Your task to perform on an android device: Open Maps and search for coffee Image 0: 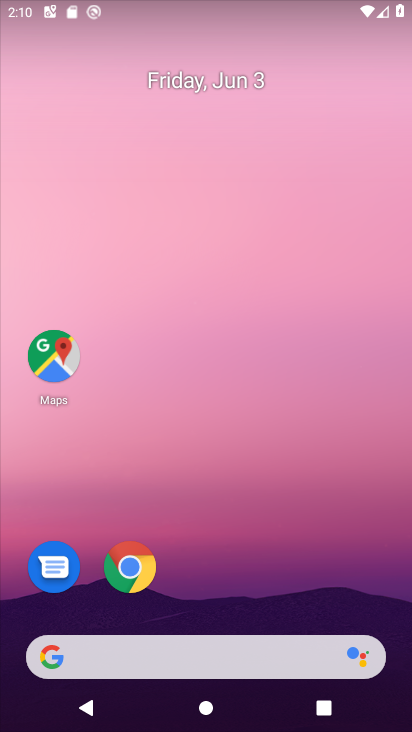
Step 0: click (48, 350)
Your task to perform on an android device: Open Maps and search for coffee Image 1: 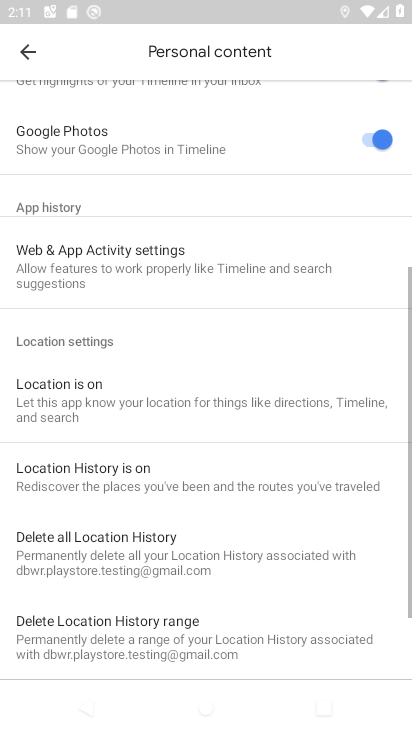
Step 1: click (32, 35)
Your task to perform on an android device: Open Maps and search for coffee Image 2: 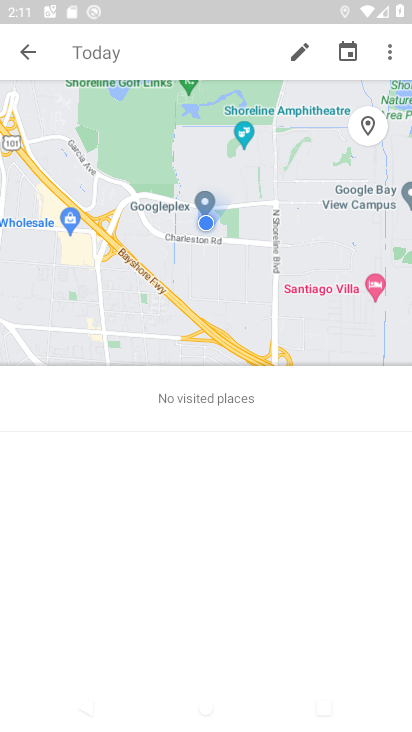
Step 2: click (34, 49)
Your task to perform on an android device: Open Maps and search for coffee Image 3: 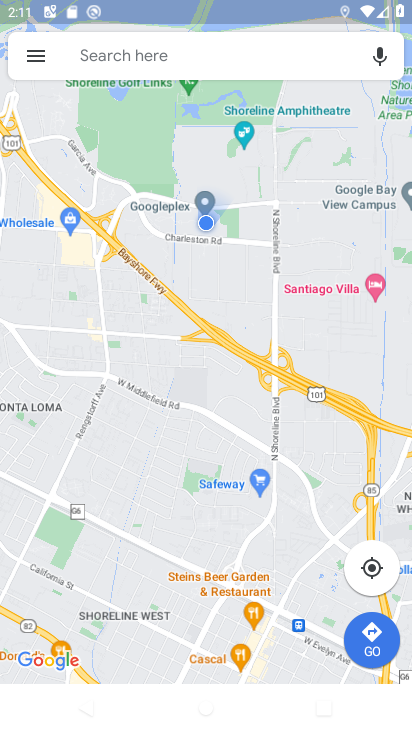
Step 3: click (202, 49)
Your task to perform on an android device: Open Maps and search for coffee Image 4: 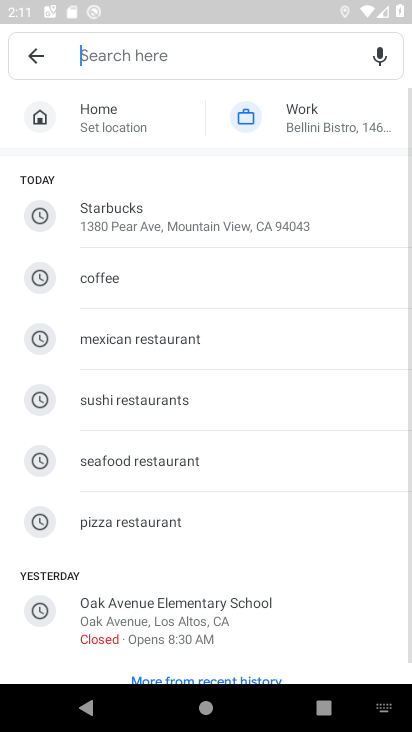
Step 4: click (165, 276)
Your task to perform on an android device: Open Maps and search for coffee Image 5: 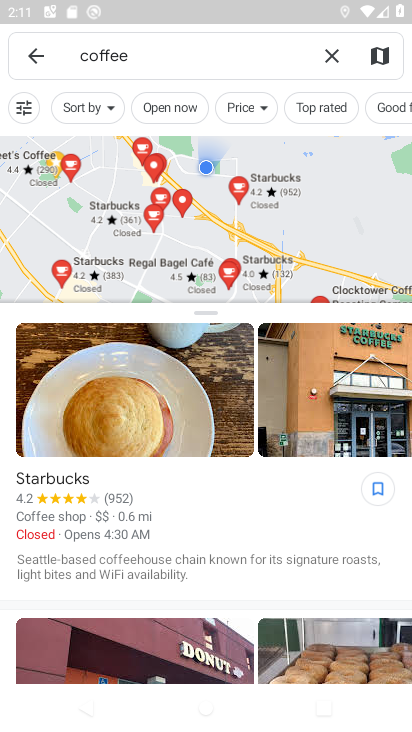
Step 5: task complete